Your task to perform on an android device: Clear the cart on amazon. Add "logitech g pro" to the cart on amazon Image 0: 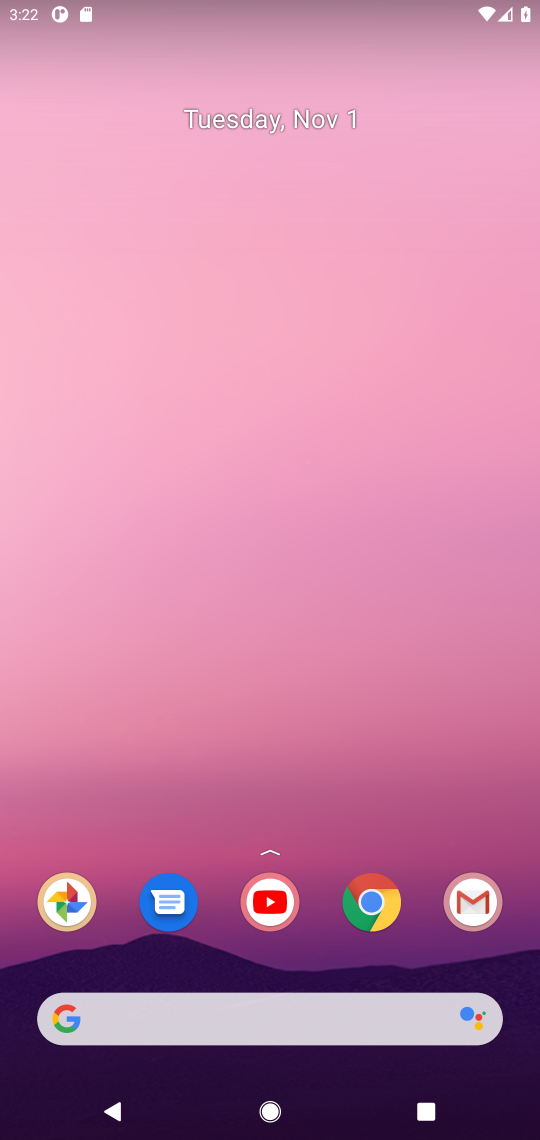
Step 0: click (371, 901)
Your task to perform on an android device: Clear the cart on amazon. Add "logitech g pro" to the cart on amazon Image 1: 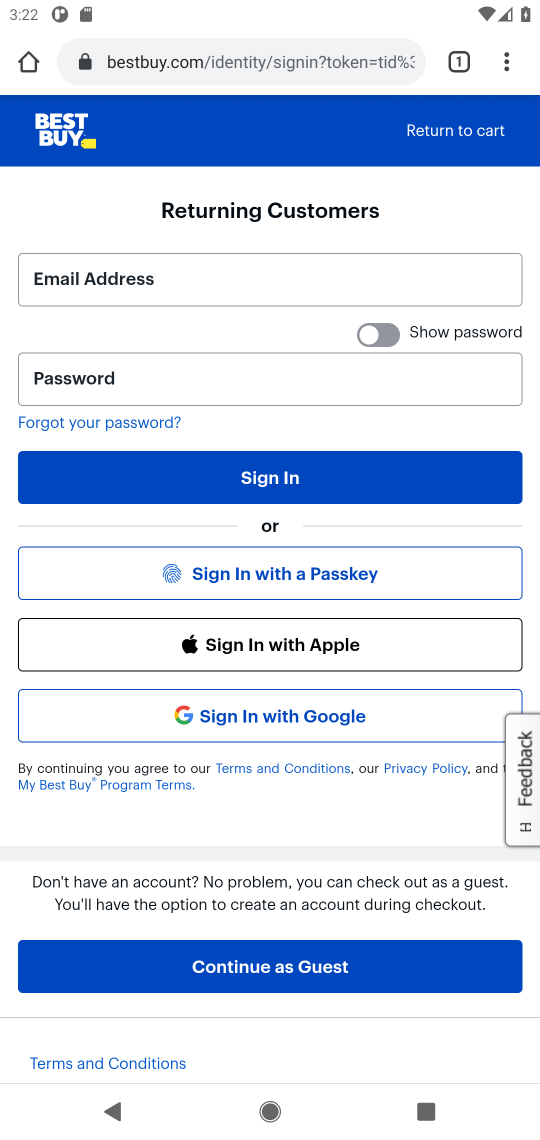
Step 1: click (329, 59)
Your task to perform on an android device: Clear the cart on amazon. Add "logitech g pro" to the cart on amazon Image 2: 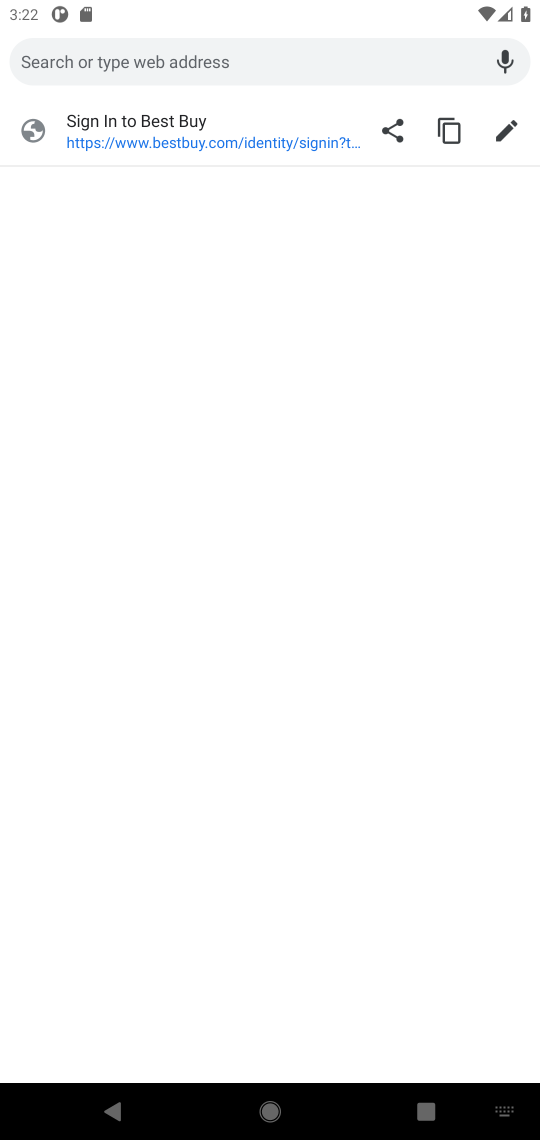
Step 2: type "amazon"
Your task to perform on an android device: Clear the cart on amazon. Add "logitech g pro" to the cart on amazon Image 3: 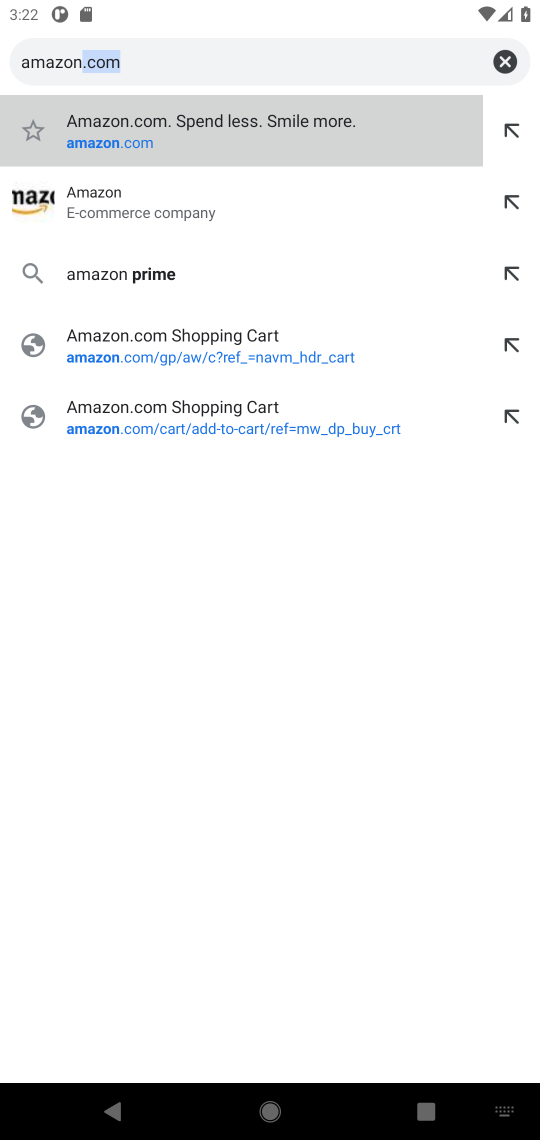
Step 3: click (122, 211)
Your task to perform on an android device: Clear the cart on amazon. Add "logitech g pro" to the cart on amazon Image 4: 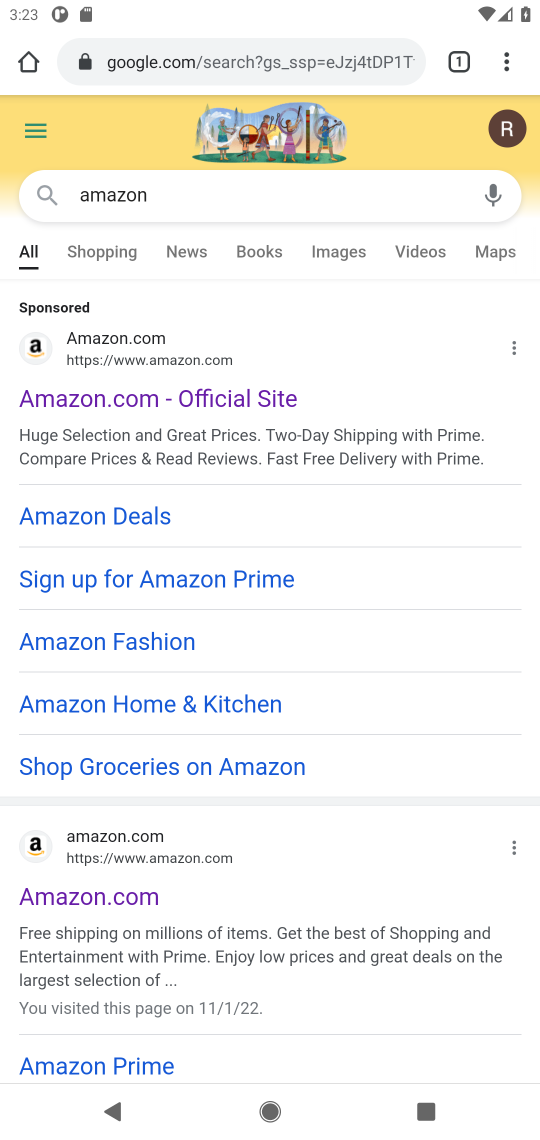
Step 4: click (121, 897)
Your task to perform on an android device: Clear the cart on amazon. Add "logitech g pro" to the cart on amazon Image 5: 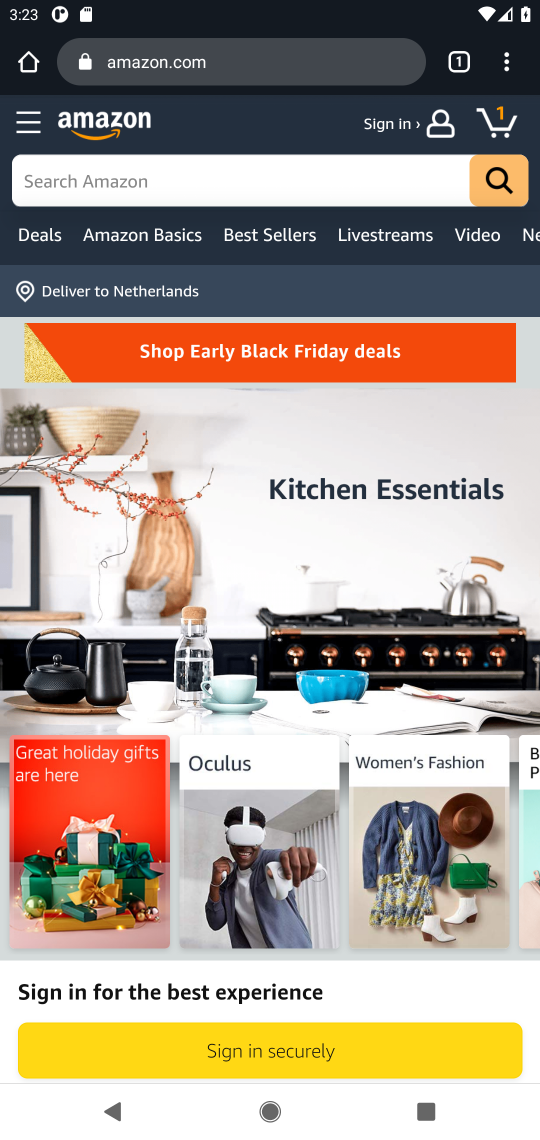
Step 5: click (500, 117)
Your task to perform on an android device: Clear the cart on amazon. Add "logitech g pro" to the cart on amazon Image 6: 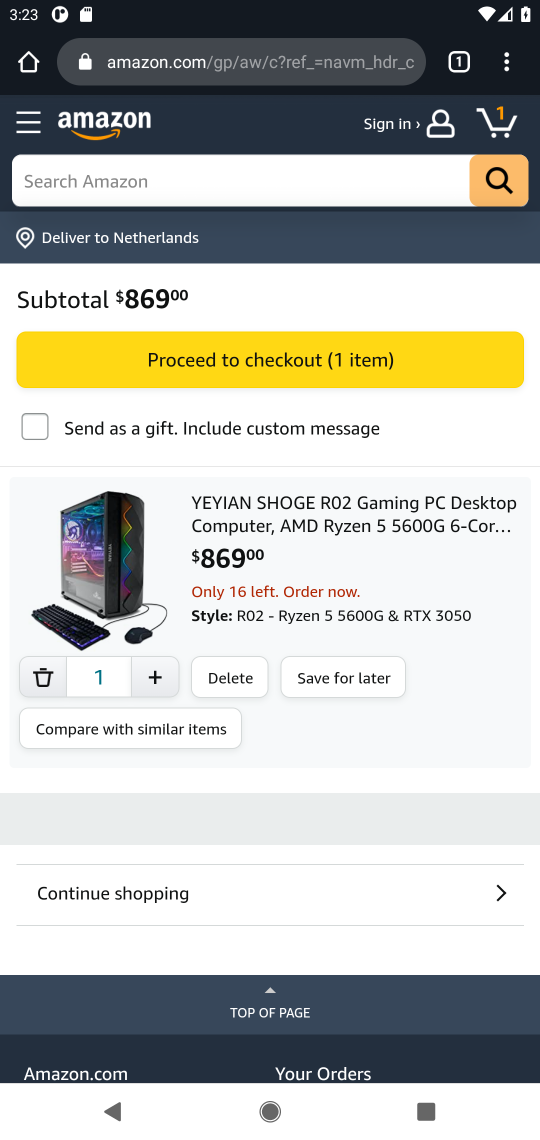
Step 6: click (241, 679)
Your task to perform on an android device: Clear the cart on amazon. Add "logitech g pro" to the cart on amazon Image 7: 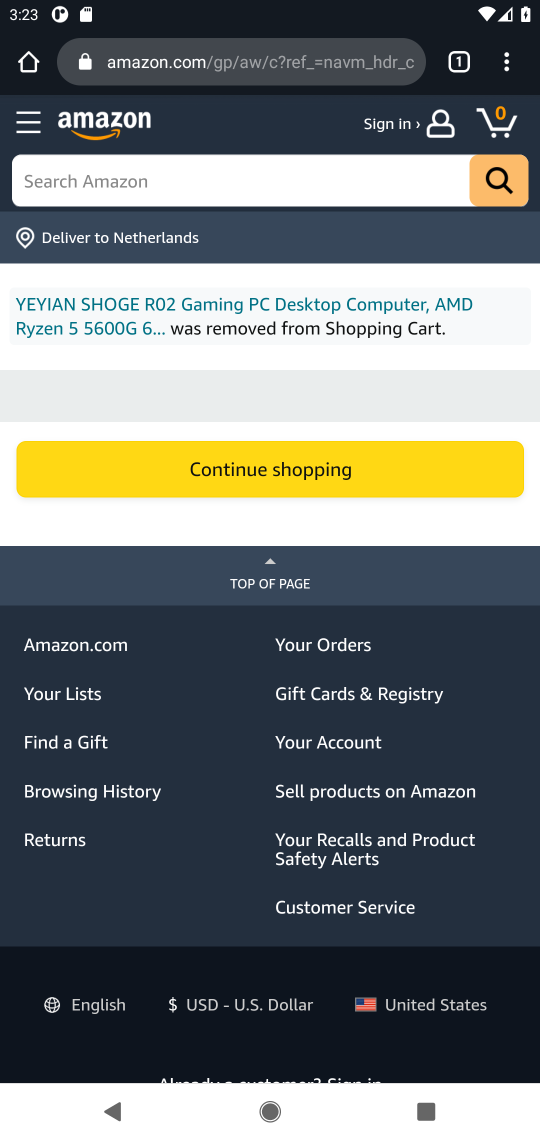
Step 7: click (370, 184)
Your task to perform on an android device: Clear the cart on amazon. Add "logitech g pro" to the cart on amazon Image 8: 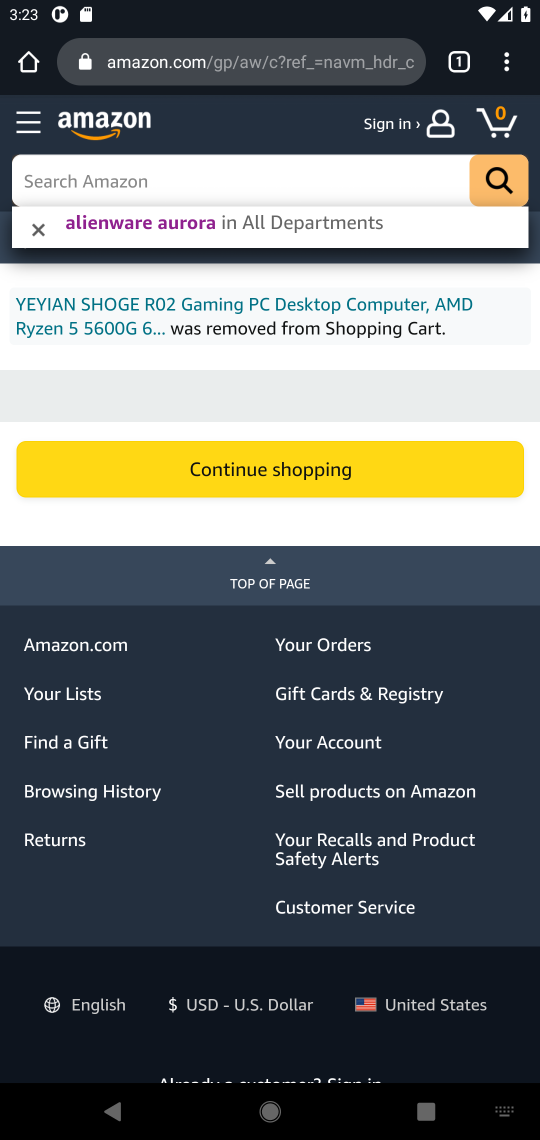
Step 8: type "logitech g pro"
Your task to perform on an android device: Clear the cart on amazon. Add "logitech g pro" to the cart on amazon Image 9: 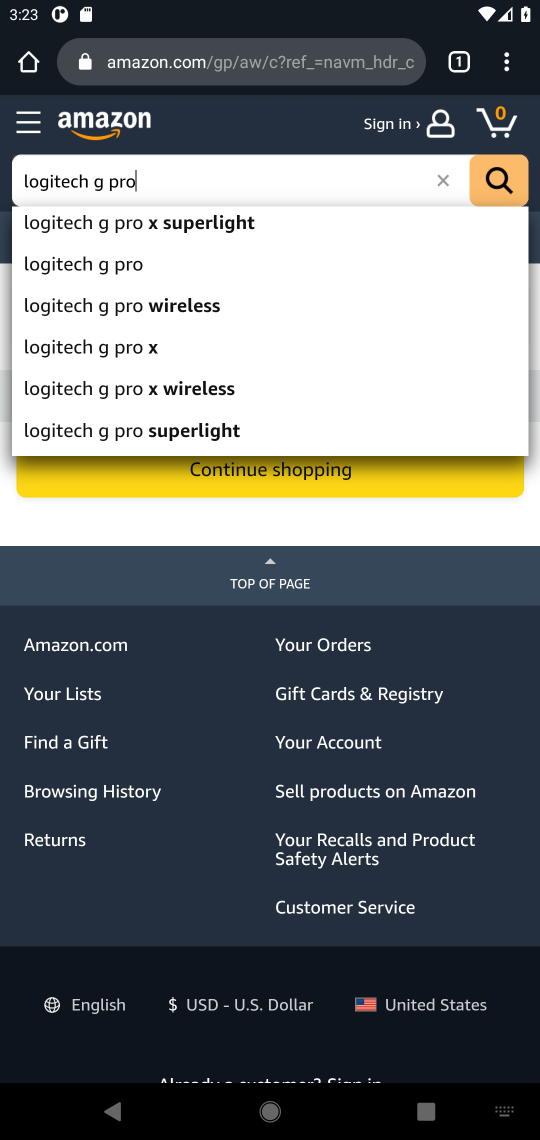
Step 9: click (491, 181)
Your task to perform on an android device: Clear the cart on amazon. Add "logitech g pro" to the cart on amazon Image 10: 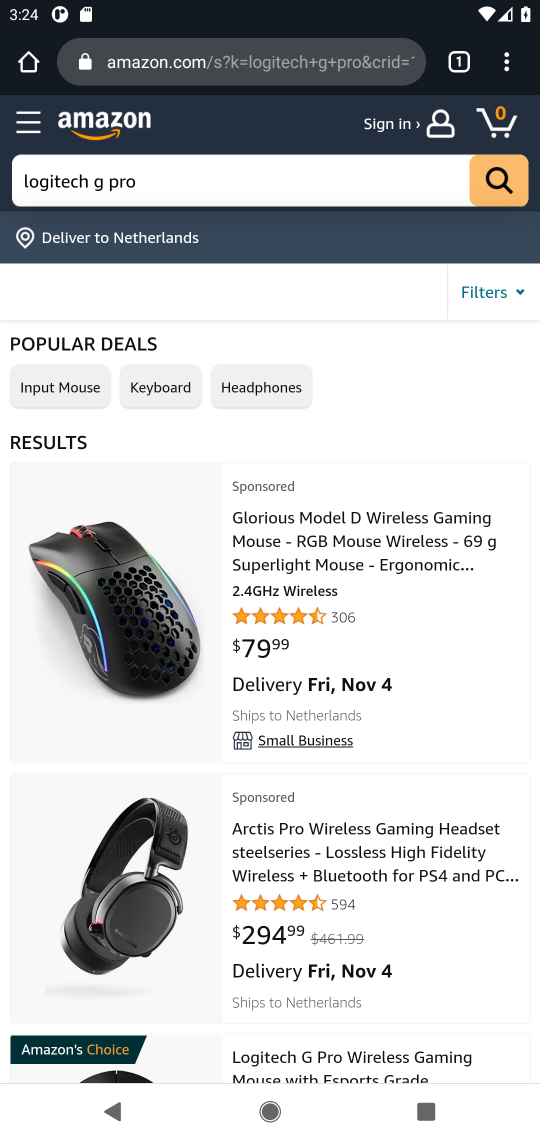
Step 10: click (354, 1059)
Your task to perform on an android device: Clear the cart on amazon. Add "logitech g pro" to the cart on amazon Image 11: 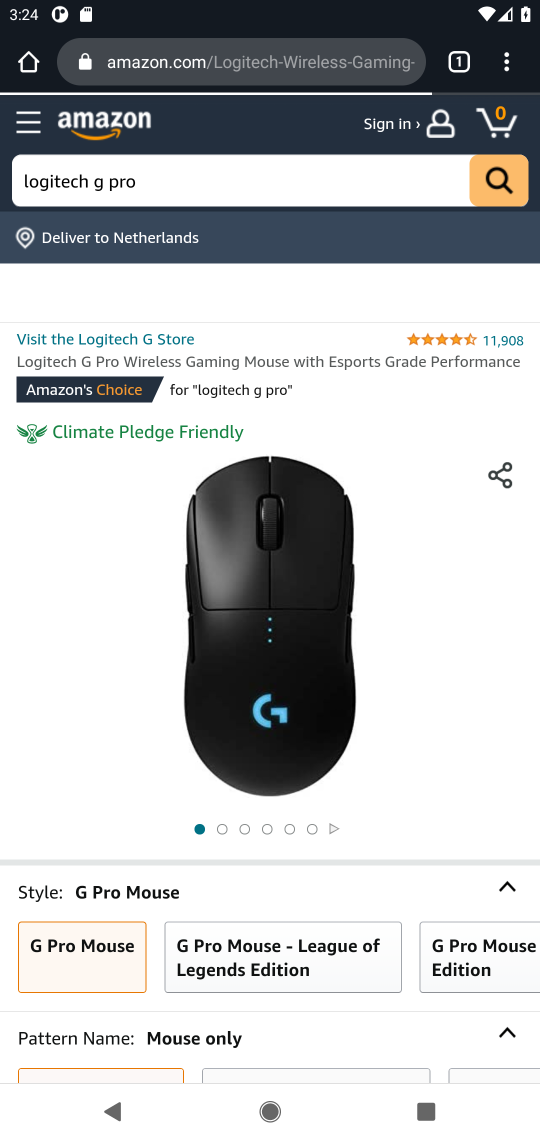
Step 11: drag from (411, 799) to (407, 332)
Your task to perform on an android device: Clear the cart on amazon. Add "logitech g pro" to the cart on amazon Image 12: 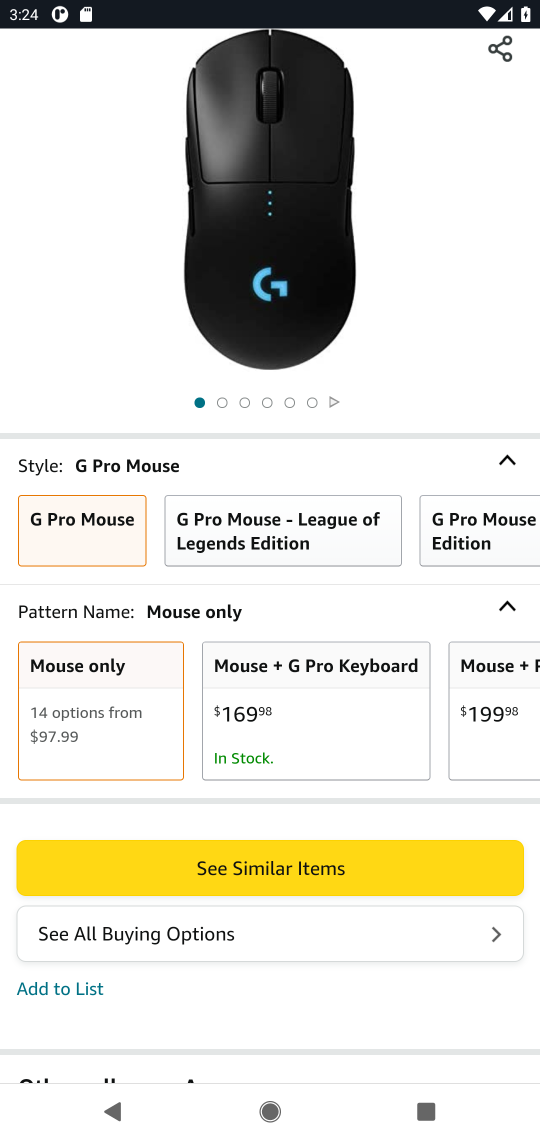
Step 12: click (373, 533)
Your task to perform on an android device: Clear the cart on amazon. Add "logitech g pro" to the cart on amazon Image 13: 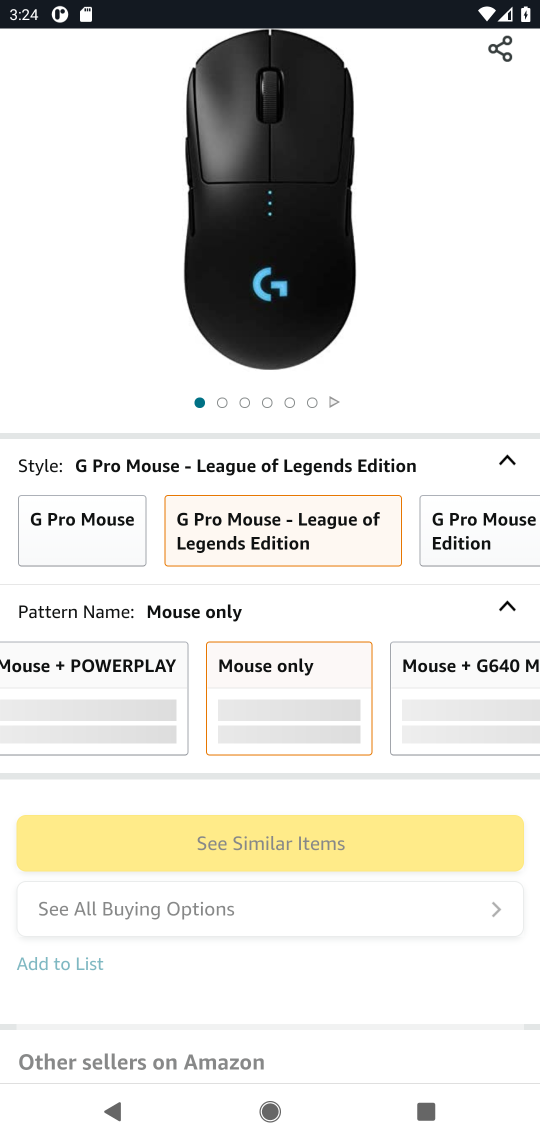
Step 13: task complete